Your task to perform on an android device: What's on the menu at Starbucks? Image 0: 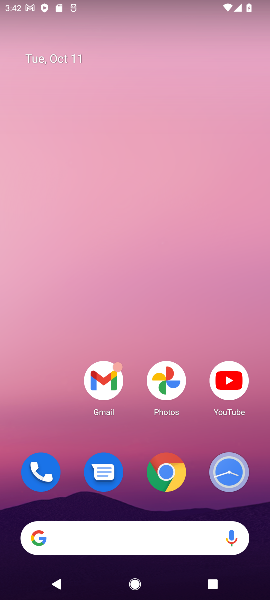
Step 0: drag from (130, 495) to (105, 113)
Your task to perform on an android device: What's on the menu at Starbucks? Image 1: 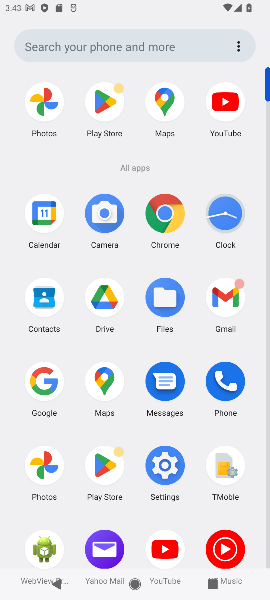
Step 1: click (102, 41)
Your task to perform on an android device: What's on the menu at Starbucks? Image 2: 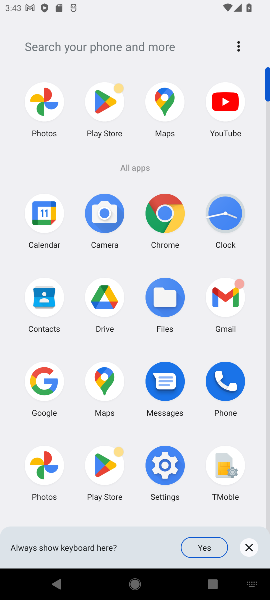
Step 2: type "What's on the menu at Starbucks?"
Your task to perform on an android device: What's on the menu at Starbucks? Image 3: 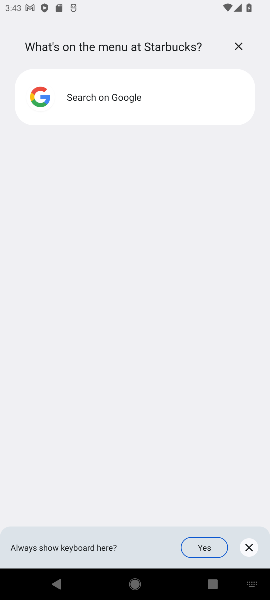
Step 3: click (118, 101)
Your task to perform on an android device: What's on the menu at Starbucks? Image 4: 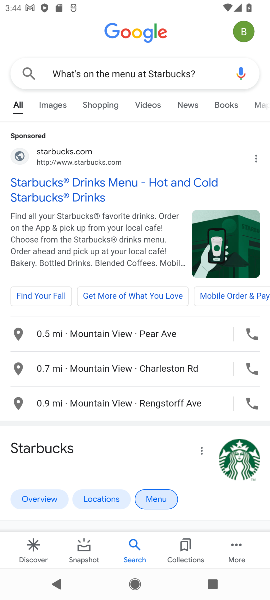
Step 4: task complete